Your task to perform on an android device: Open display settings Image 0: 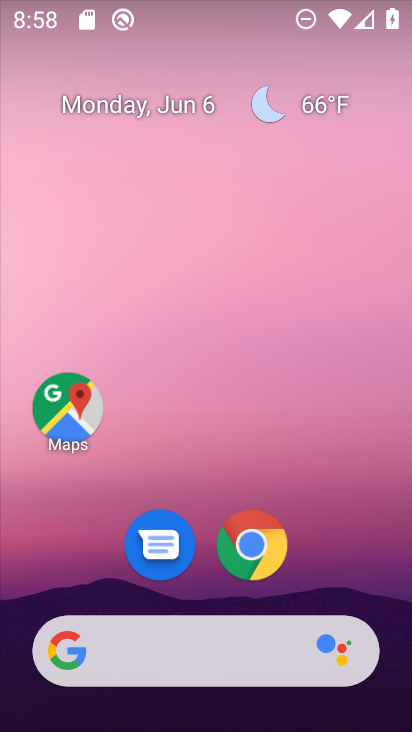
Step 0: drag from (217, 590) to (275, 8)
Your task to perform on an android device: Open display settings Image 1: 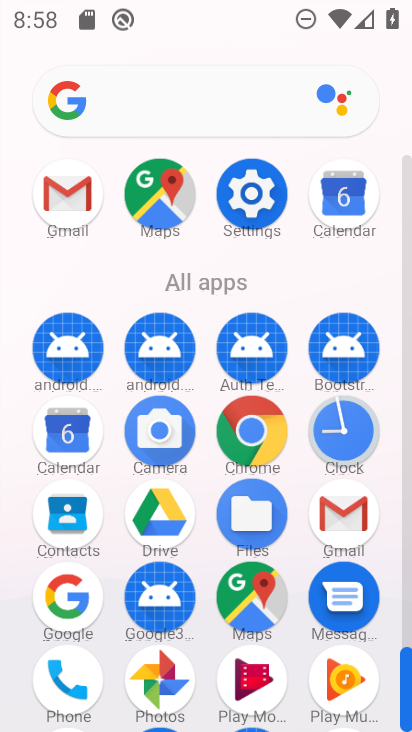
Step 1: click (252, 228)
Your task to perform on an android device: Open display settings Image 2: 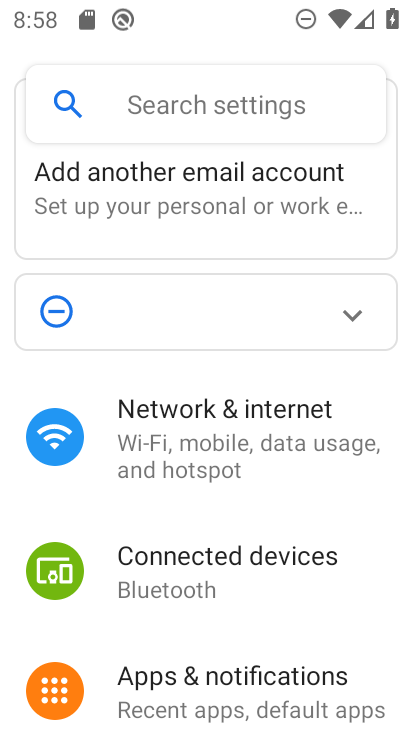
Step 2: drag from (198, 627) to (263, 208)
Your task to perform on an android device: Open display settings Image 3: 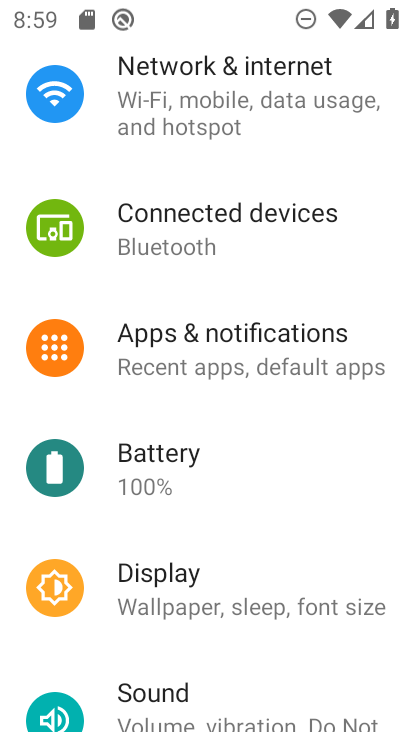
Step 3: click (200, 607)
Your task to perform on an android device: Open display settings Image 4: 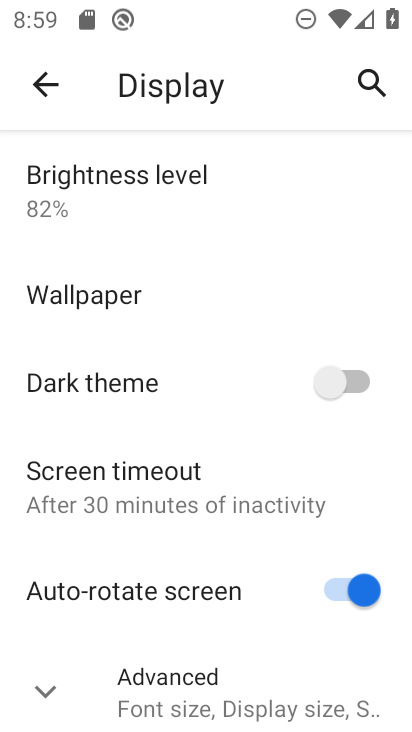
Step 4: task complete